Your task to perform on an android device: set the timer Image 0: 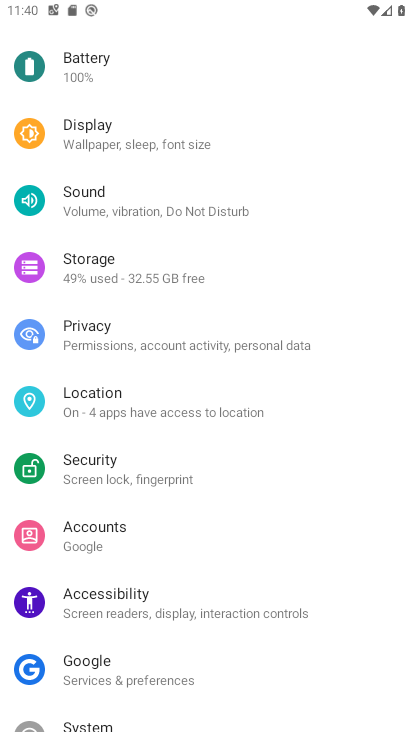
Step 0: press home button
Your task to perform on an android device: set the timer Image 1: 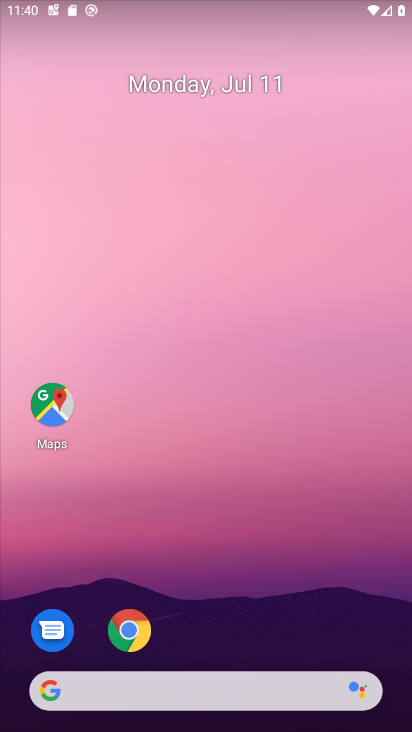
Step 1: click (199, 32)
Your task to perform on an android device: set the timer Image 2: 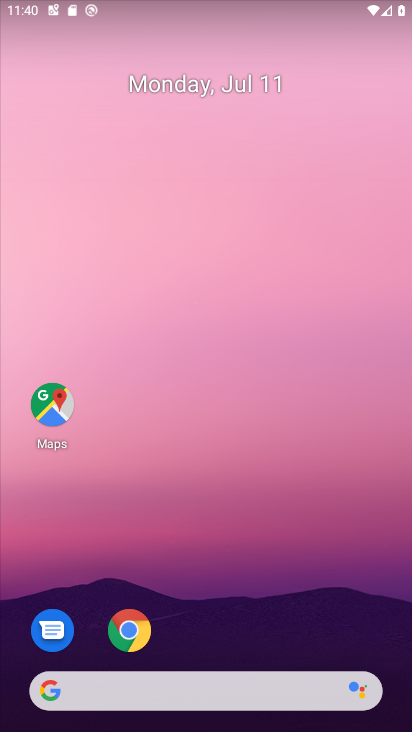
Step 2: drag from (206, 632) to (326, 4)
Your task to perform on an android device: set the timer Image 3: 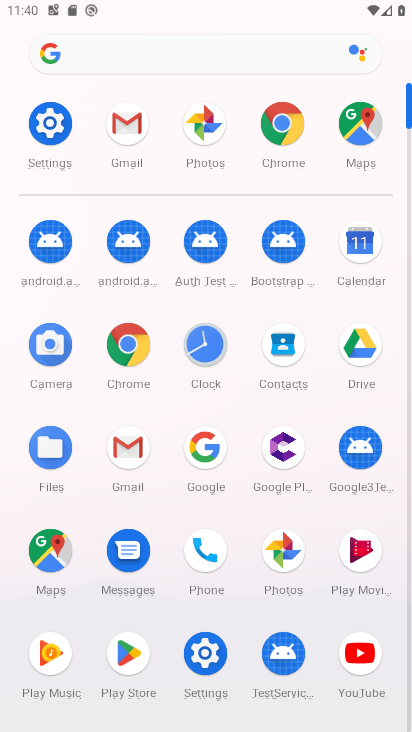
Step 3: click (210, 345)
Your task to perform on an android device: set the timer Image 4: 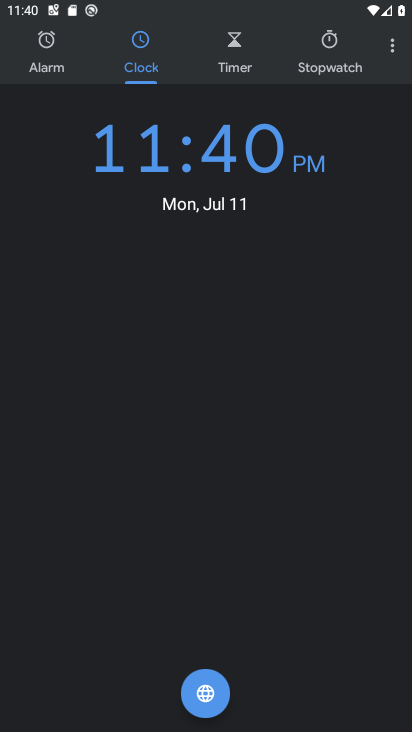
Step 4: click (240, 71)
Your task to perform on an android device: set the timer Image 5: 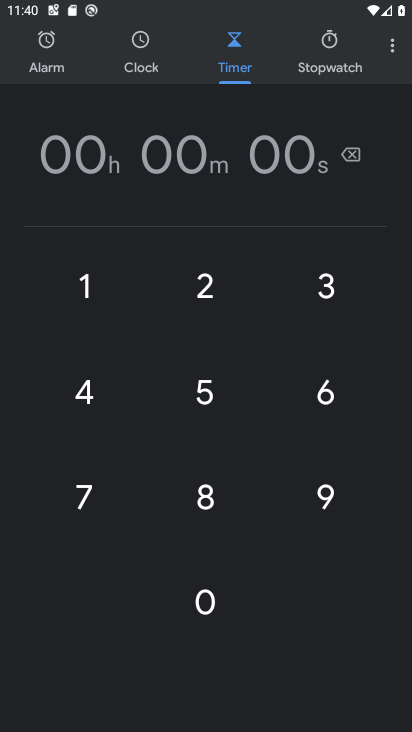
Step 5: click (209, 395)
Your task to perform on an android device: set the timer Image 6: 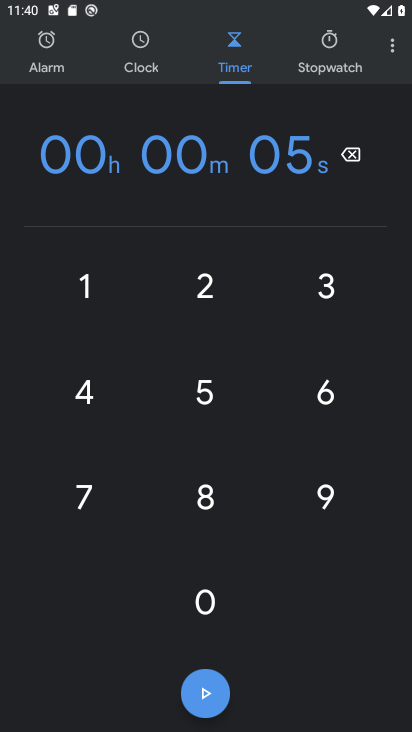
Step 6: click (78, 370)
Your task to perform on an android device: set the timer Image 7: 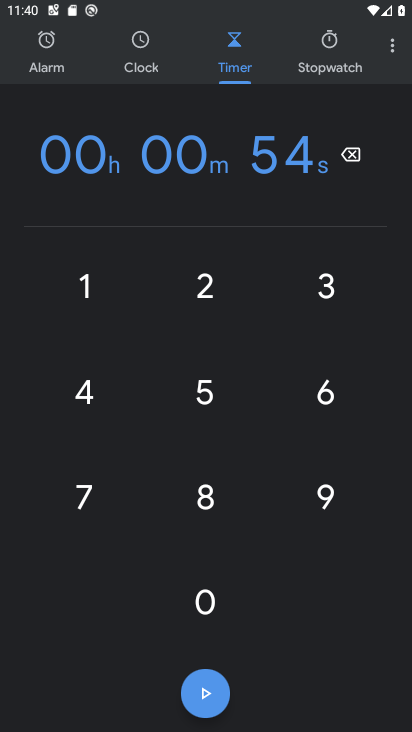
Step 7: click (321, 285)
Your task to perform on an android device: set the timer Image 8: 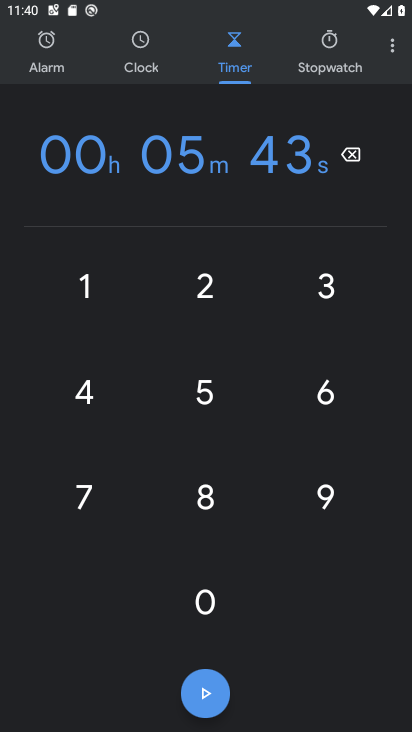
Step 8: click (210, 687)
Your task to perform on an android device: set the timer Image 9: 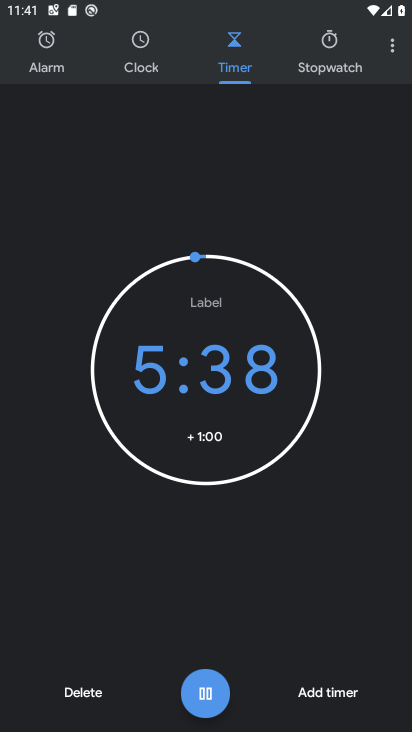
Step 9: task complete